Your task to perform on an android device: check android version Image 0: 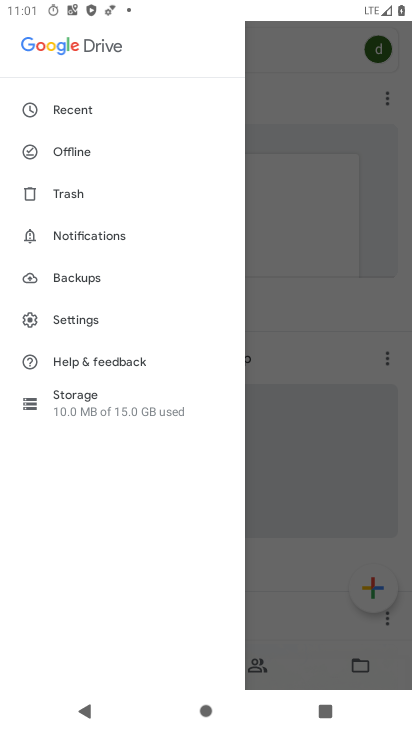
Step 0: press home button
Your task to perform on an android device: check android version Image 1: 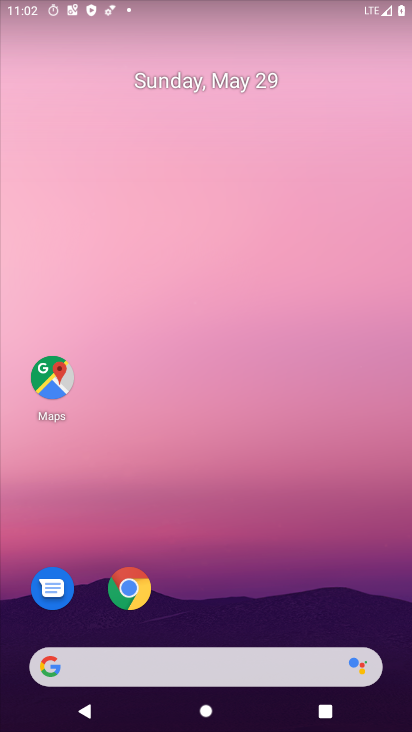
Step 1: drag from (18, 655) to (350, 108)
Your task to perform on an android device: check android version Image 2: 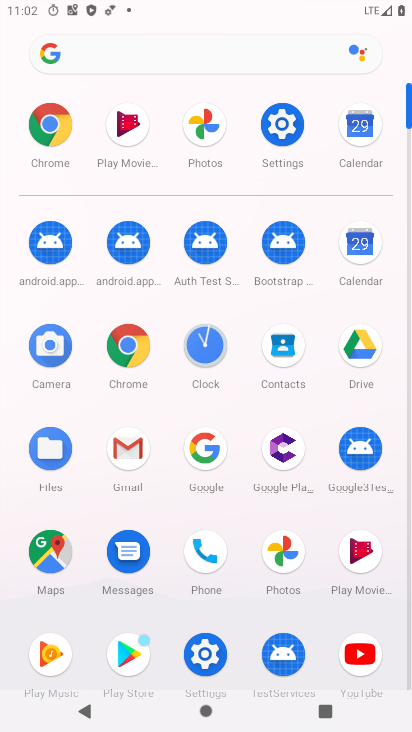
Step 2: click (276, 124)
Your task to perform on an android device: check android version Image 3: 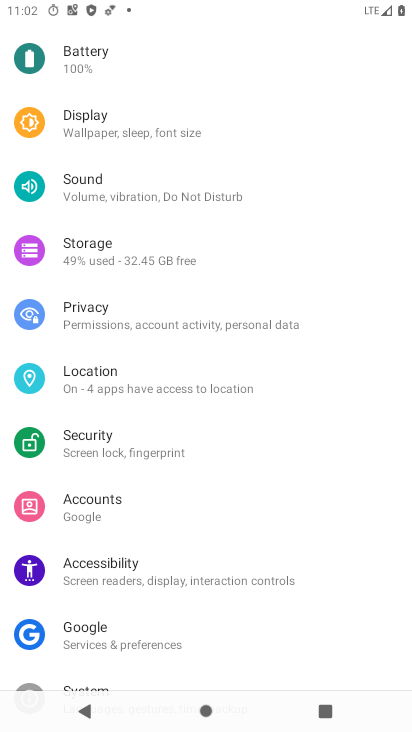
Step 3: drag from (34, 583) to (287, 92)
Your task to perform on an android device: check android version Image 4: 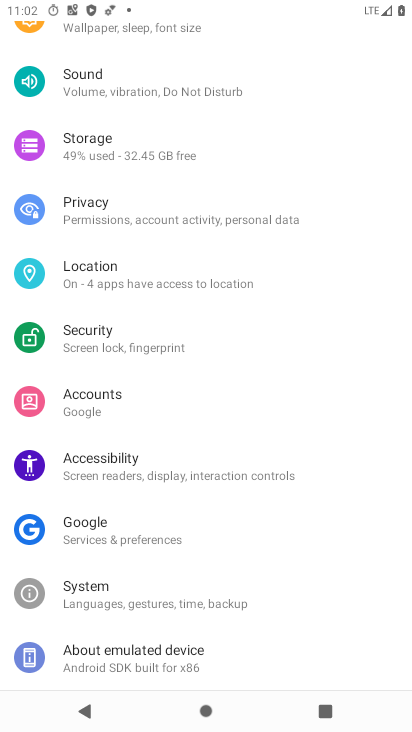
Step 4: click (44, 591)
Your task to perform on an android device: check android version Image 5: 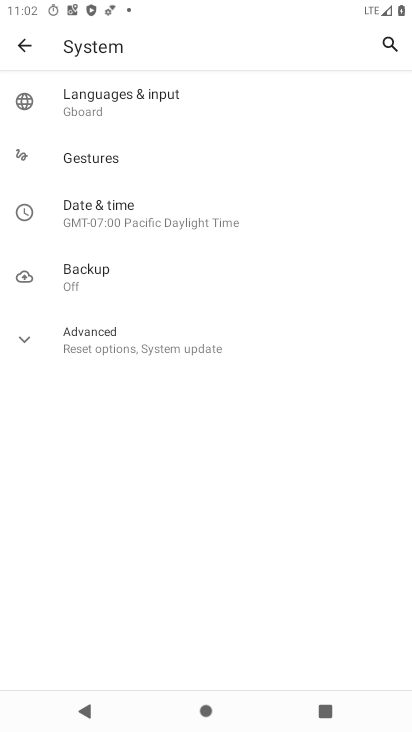
Step 5: press back button
Your task to perform on an android device: check android version Image 6: 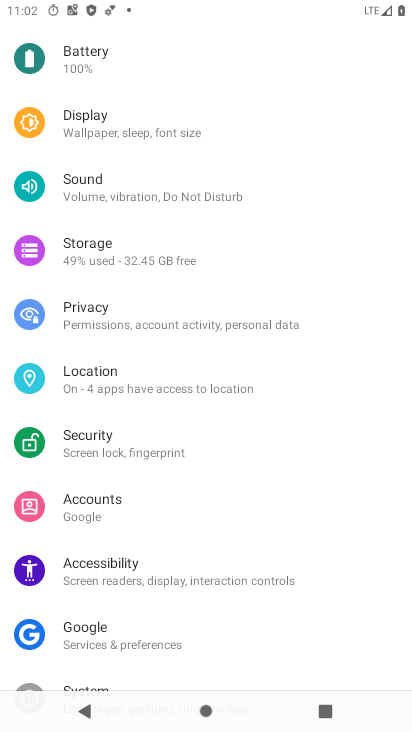
Step 6: drag from (51, 658) to (307, 114)
Your task to perform on an android device: check android version Image 7: 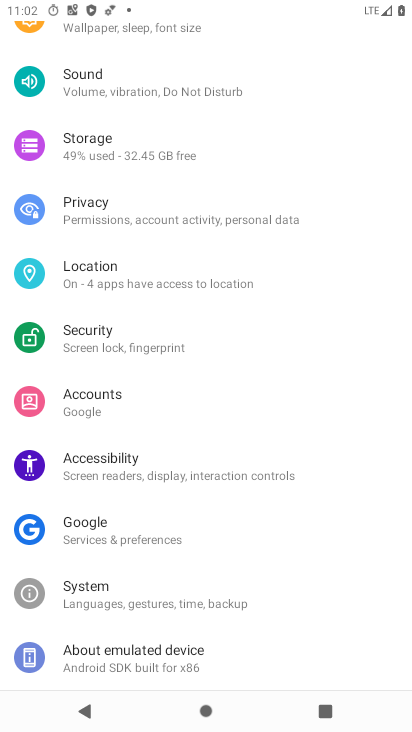
Step 7: click (93, 658)
Your task to perform on an android device: check android version Image 8: 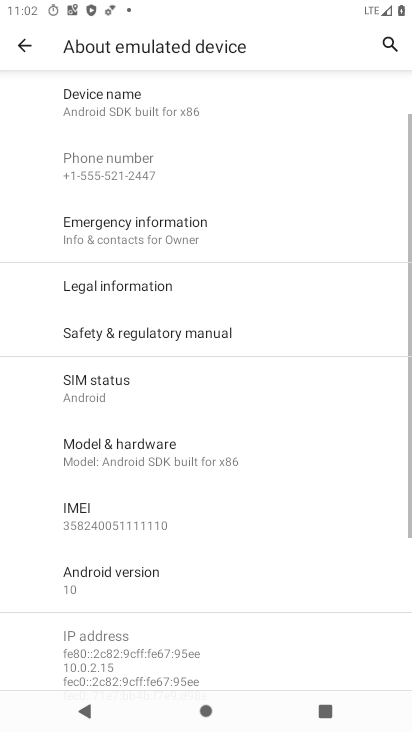
Step 8: drag from (27, 539) to (303, 91)
Your task to perform on an android device: check android version Image 9: 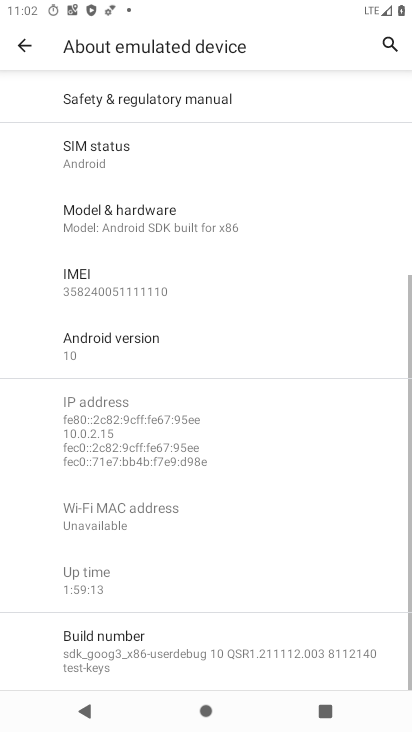
Step 9: click (113, 335)
Your task to perform on an android device: check android version Image 10: 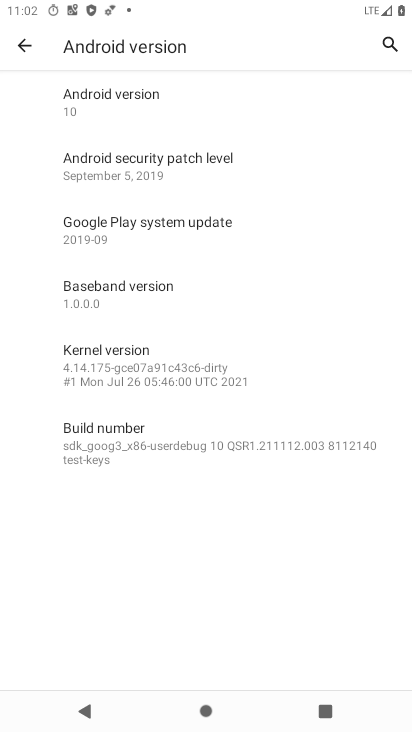
Step 10: task complete